Your task to perform on an android device: open device folders in google photos Image 0: 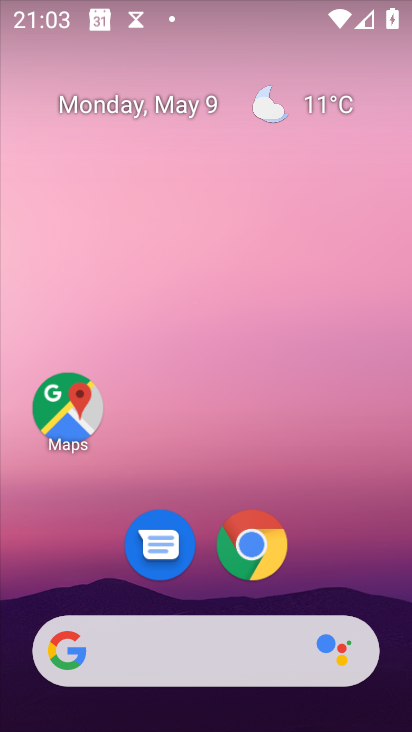
Step 0: drag from (212, 725) to (172, 124)
Your task to perform on an android device: open device folders in google photos Image 1: 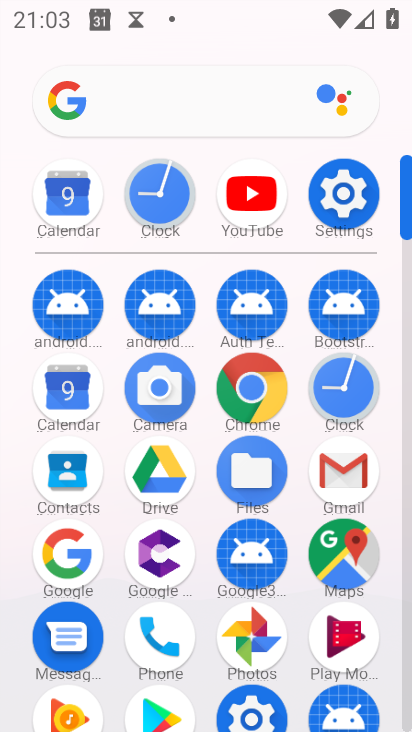
Step 1: drag from (197, 664) to (198, 334)
Your task to perform on an android device: open device folders in google photos Image 2: 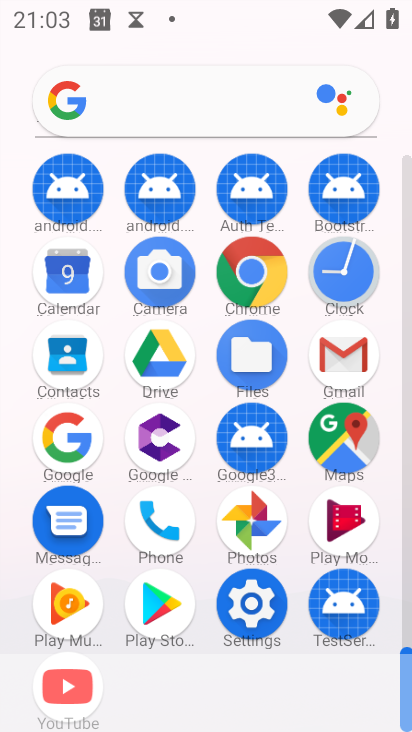
Step 2: click (257, 518)
Your task to perform on an android device: open device folders in google photos Image 3: 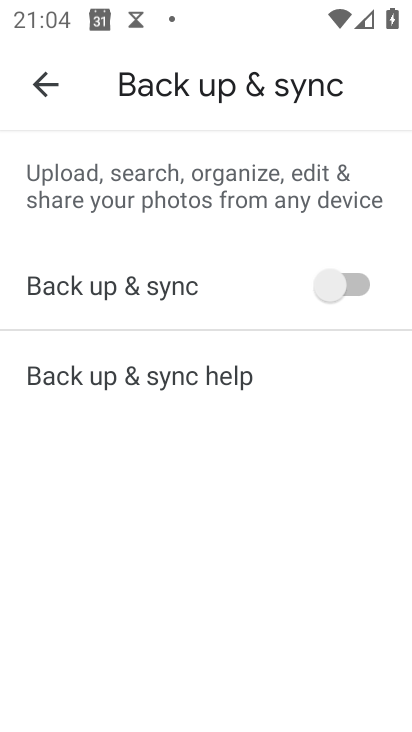
Step 3: click (40, 71)
Your task to perform on an android device: open device folders in google photos Image 4: 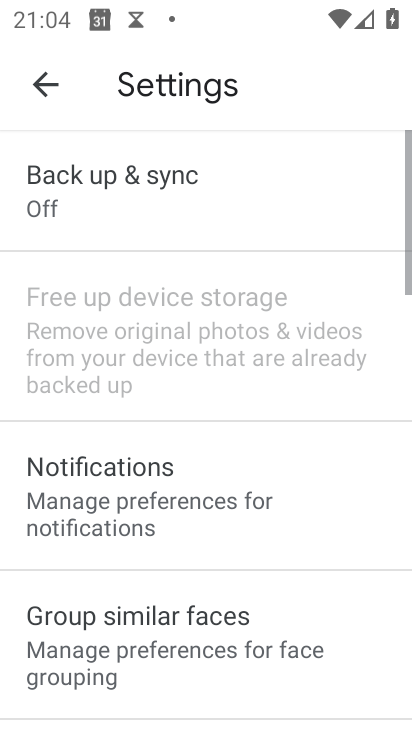
Step 4: click (44, 73)
Your task to perform on an android device: open device folders in google photos Image 5: 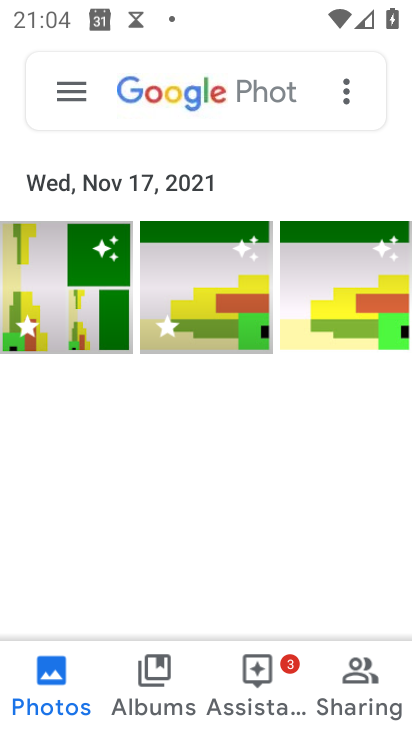
Step 5: click (64, 85)
Your task to perform on an android device: open device folders in google photos Image 6: 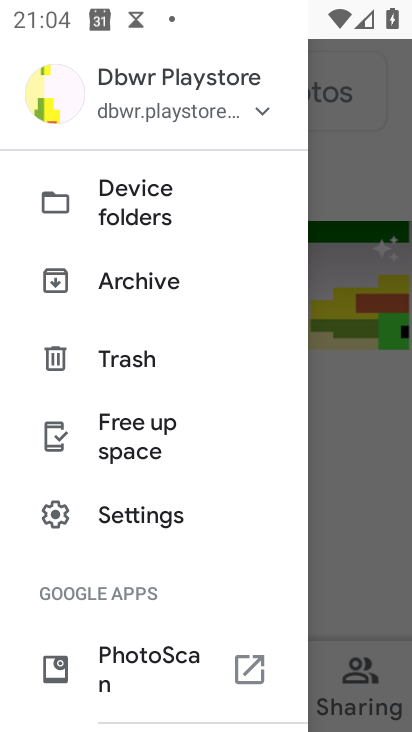
Step 6: click (136, 195)
Your task to perform on an android device: open device folders in google photos Image 7: 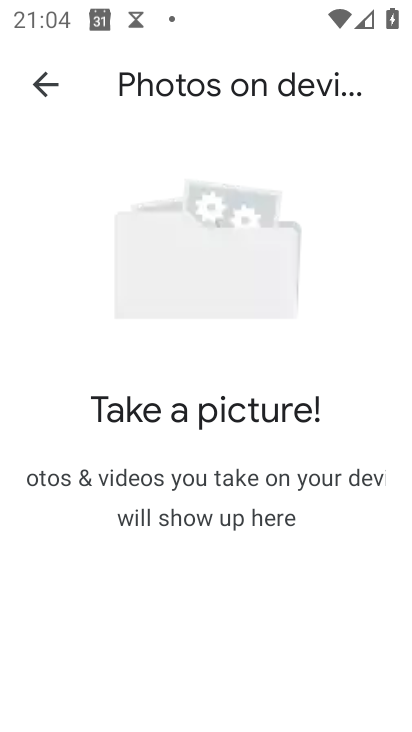
Step 7: task complete